Your task to perform on an android device: Open notification settings Image 0: 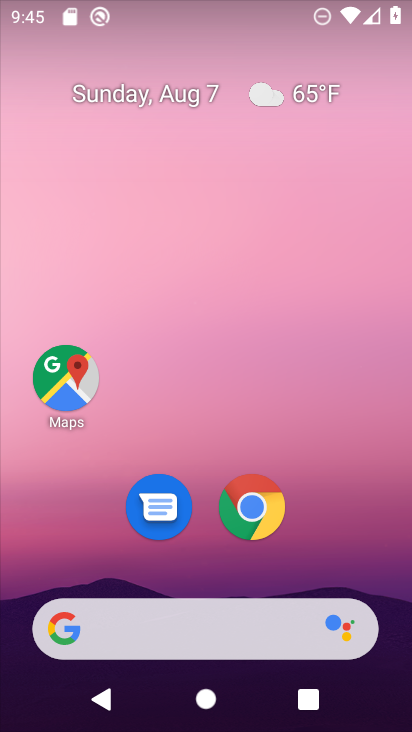
Step 0: drag from (364, 529) to (361, 164)
Your task to perform on an android device: Open notification settings Image 1: 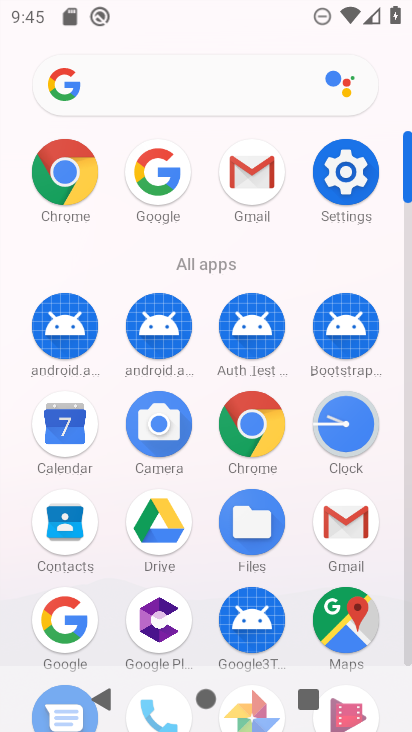
Step 1: click (361, 164)
Your task to perform on an android device: Open notification settings Image 2: 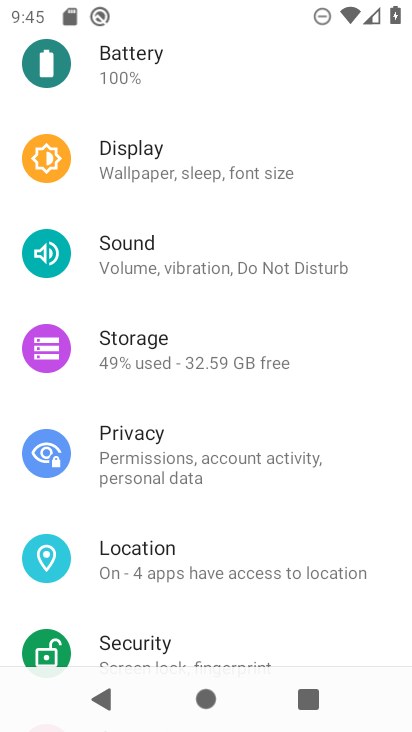
Step 2: drag from (214, 139) to (185, 426)
Your task to perform on an android device: Open notification settings Image 3: 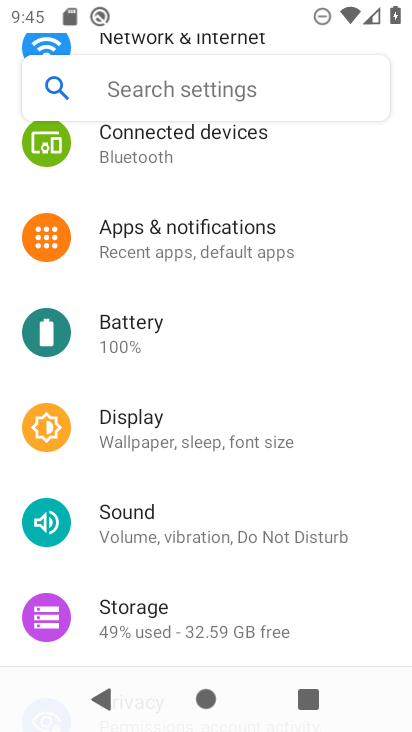
Step 3: click (168, 247)
Your task to perform on an android device: Open notification settings Image 4: 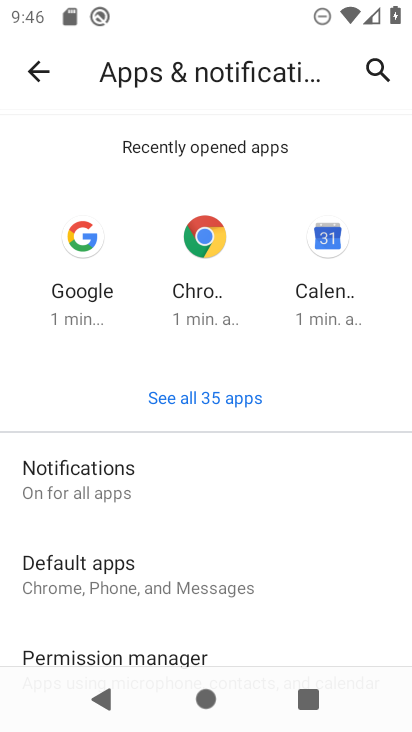
Step 4: click (113, 493)
Your task to perform on an android device: Open notification settings Image 5: 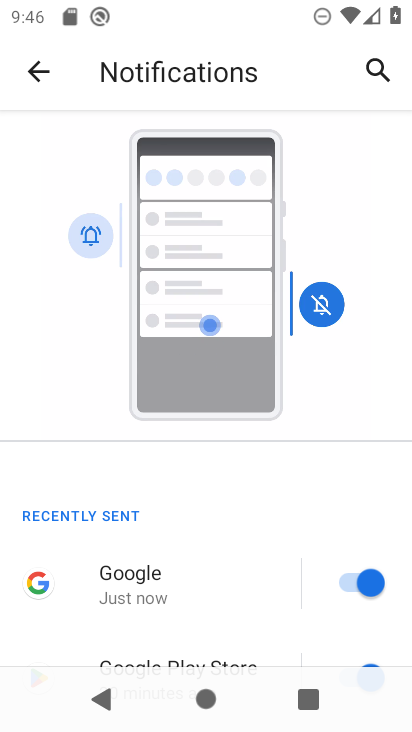
Step 5: task complete